Your task to perform on an android device: Go to display settings Image 0: 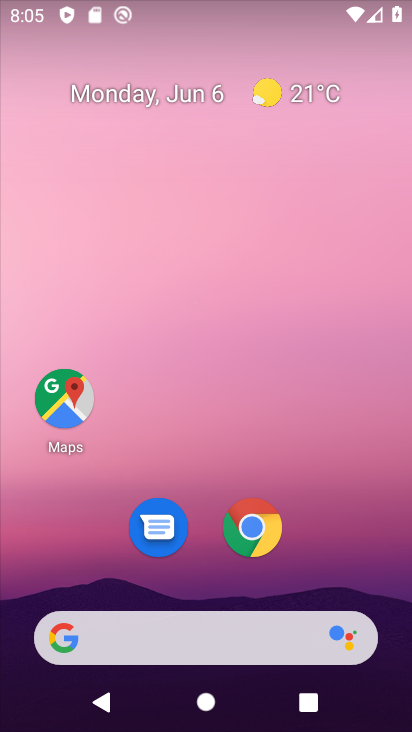
Step 0: drag from (178, 619) to (261, 64)
Your task to perform on an android device: Go to display settings Image 1: 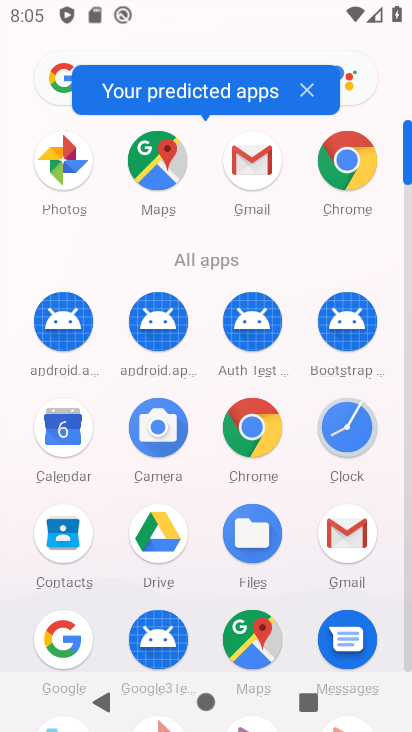
Step 1: drag from (222, 593) to (311, 80)
Your task to perform on an android device: Go to display settings Image 2: 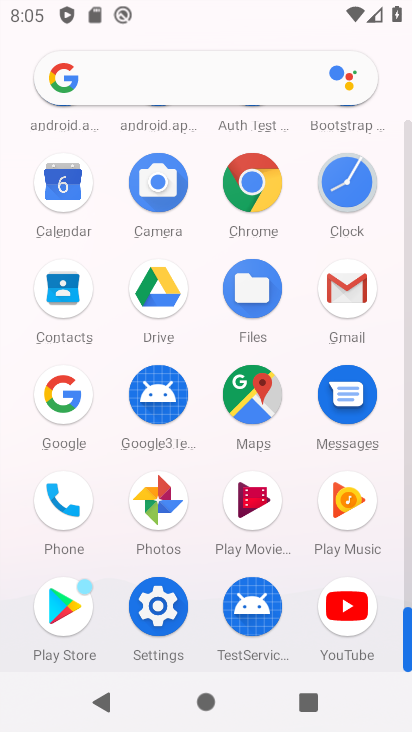
Step 2: click (157, 603)
Your task to perform on an android device: Go to display settings Image 3: 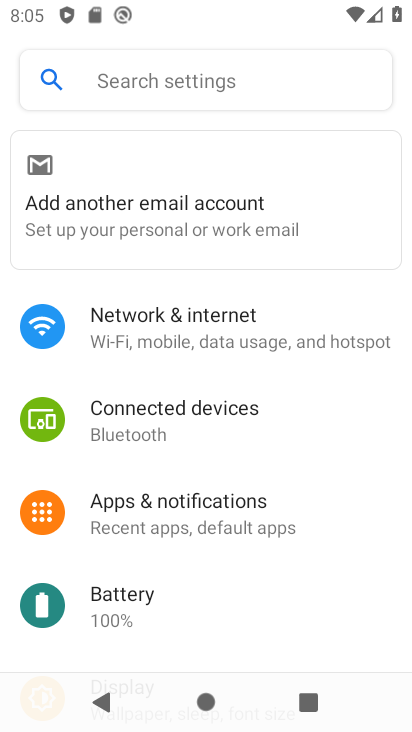
Step 3: drag from (149, 558) to (207, 260)
Your task to perform on an android device: Go to display settings Image 4: 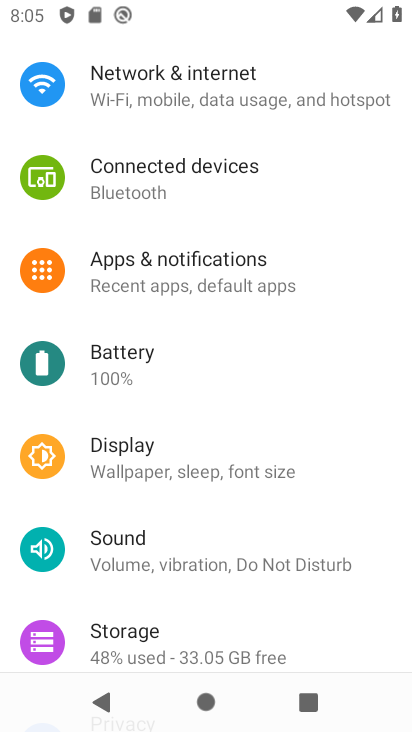
Step 4: click (146, 457)
Your task to perform on an android device: Go to display settings Image 5: 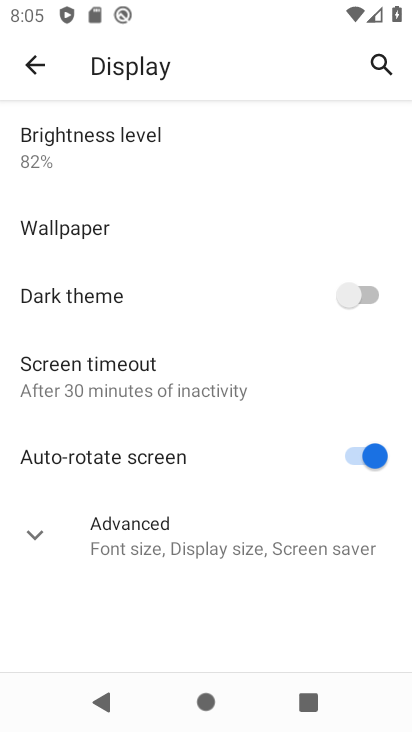
Step 5: task complete